Your task to perform on an android device: When is my next meeting? Image 0: 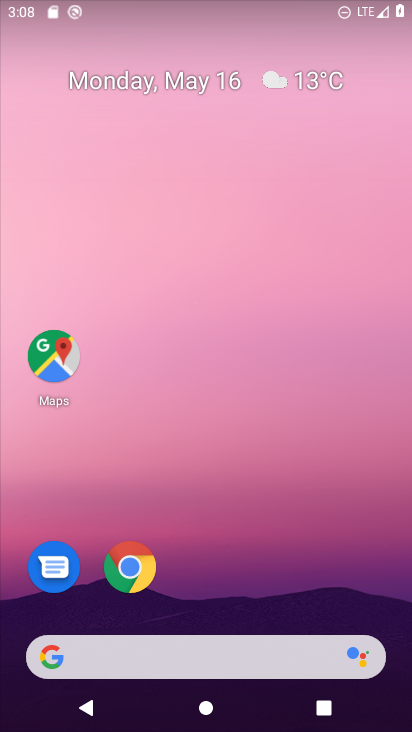
Step 0: drag from (264, 518) to (158, 6)
Your task to perform on an android device: When is my next meeting? Image 1: 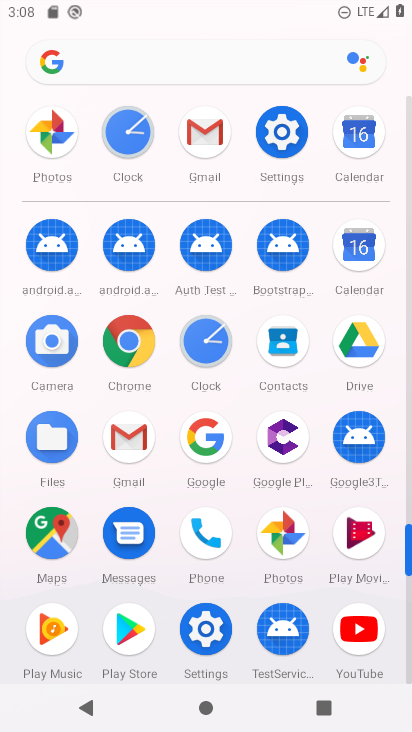
Step 1: click (354, 269)
Your task to perform on an android device: When is my next meeting? Image 2: 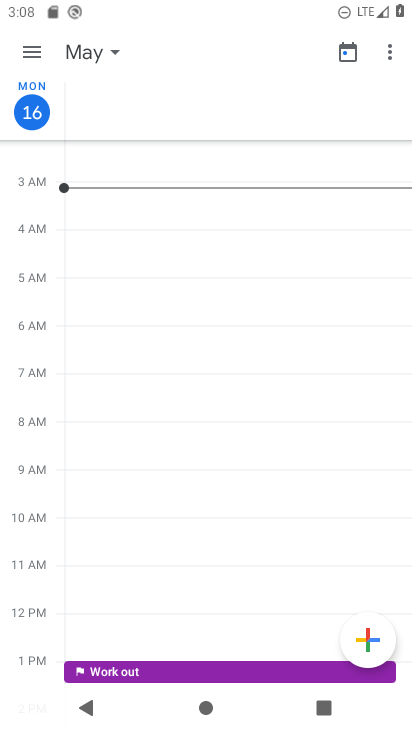
Step 2: task complete